Your task to perform on an android device: turn pop-ups off in chrome Image 0: 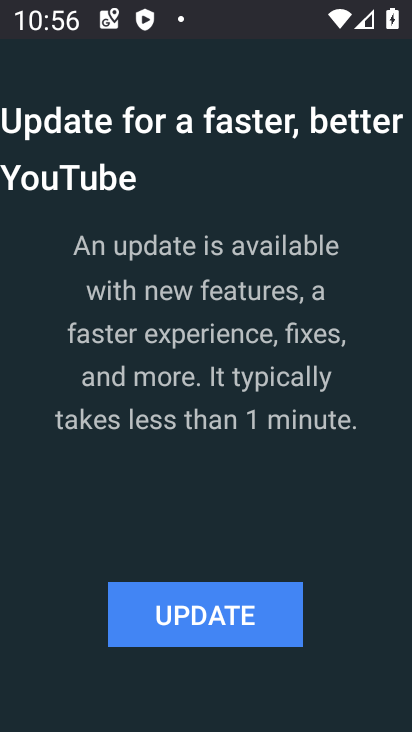
Step 0: press home button
Your task to perform on an android device: turn pop-ups off in chrome Image 1: 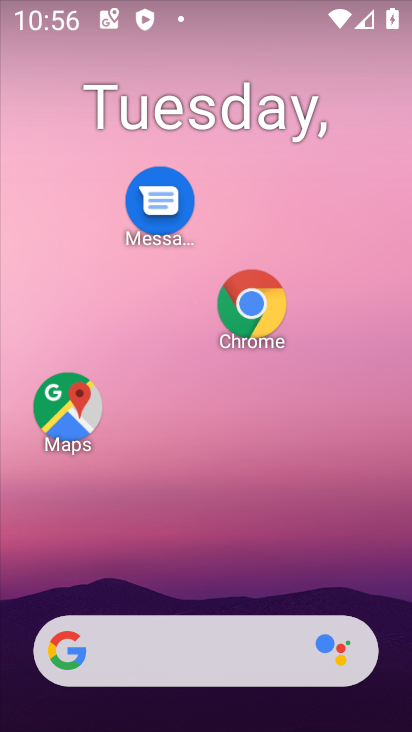
Step 1: drag from (276, 563) to (370, 163)
Your task to perform on an android device: turn pop-ups off in chrome Image 2: 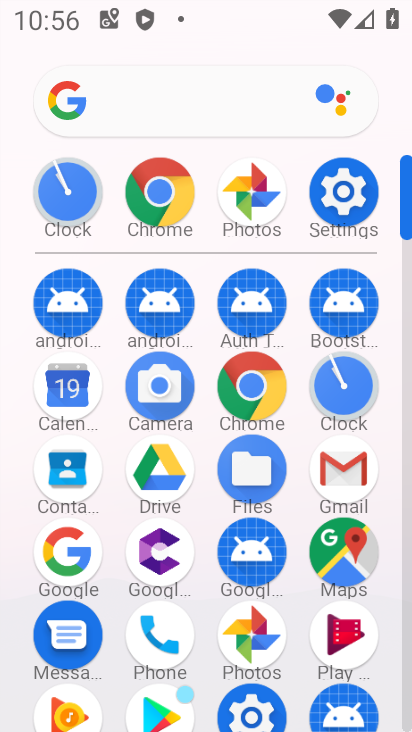
Step 2: click (249, 383)
Your task to perform on an android device: turn pop-ups off in chrome Image 3: 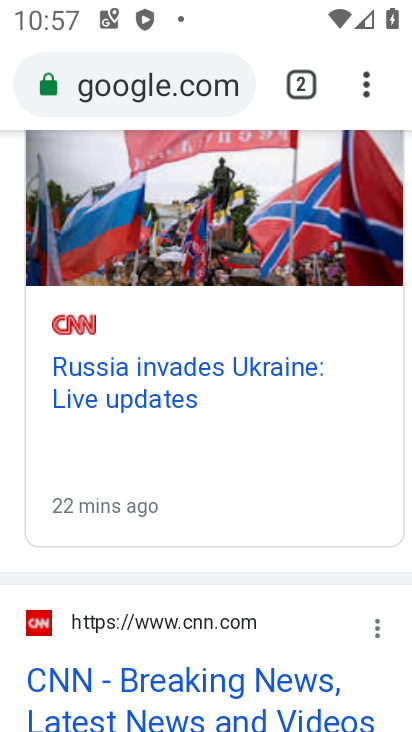
Step 3: click (369, 82)
Your task to perform on an android device: turn pop-ups off in chrome Image 4: 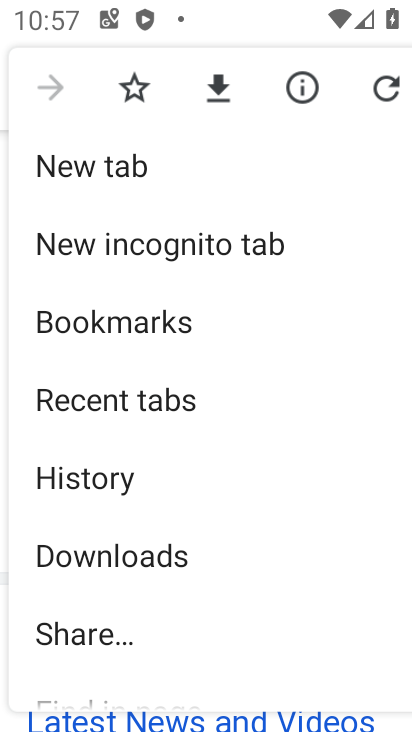
Step 4: drag from (200, 620) to (411, 108)
Your task to perform on an android device: turn pop-ups off in chrome Image 5: 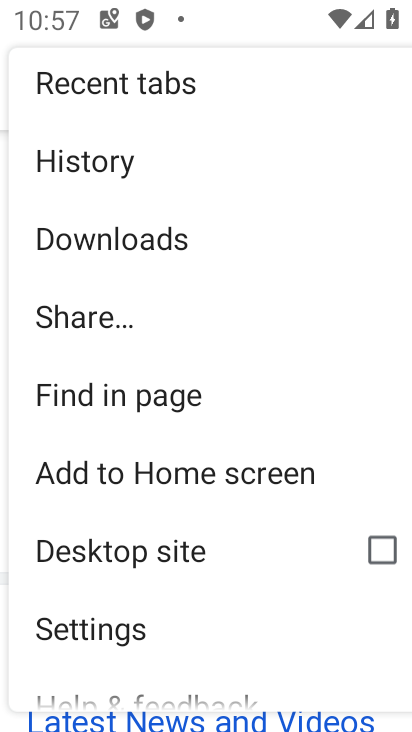
Step 5: click (145, 640)
Your task to perform on an android device: turn pop-ups off in chrome Image 6: 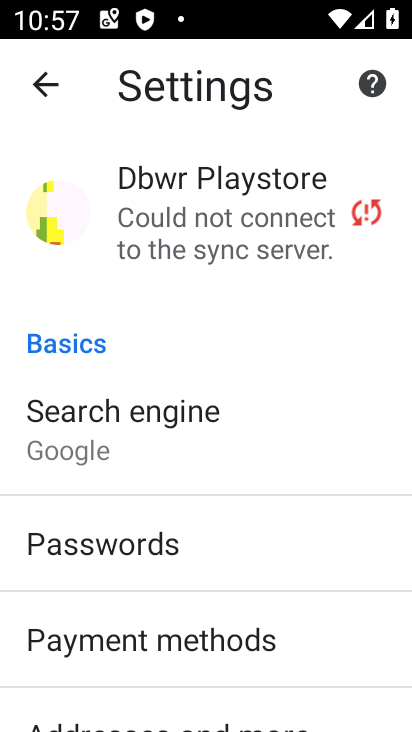
Step 6: drag from (169, 633) to (253, 284)
Your task to perform on an android device: turn pop-ups off in chrome Image 7: 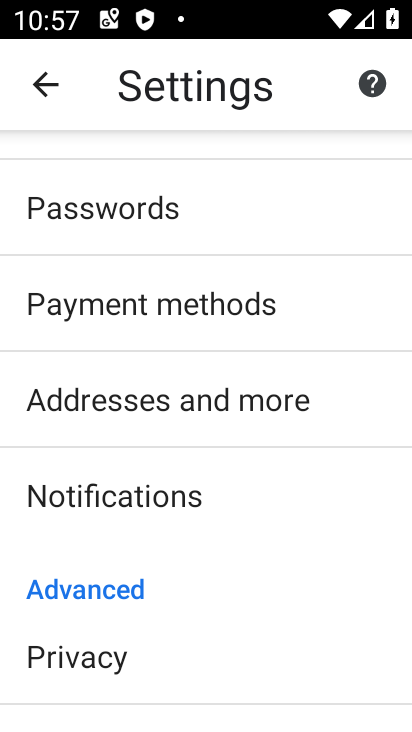
Step 7: drag from (132, 575) to (229, 265)
Your task to perform on an android device: turn pop-ups off in chrome Image 8: 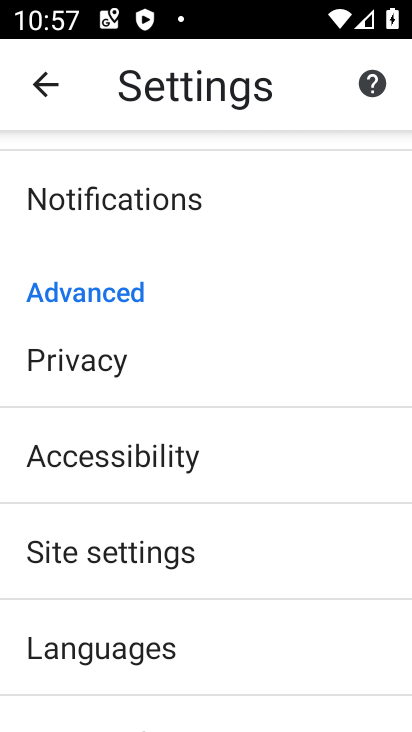
Step 8: click (153, 546)
Your task to perform on an android device: turn pop-ups off in chrome Image 9: 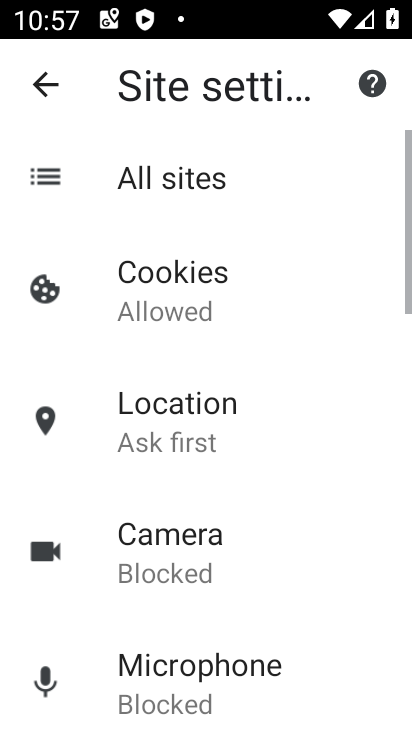
Step 9: drag from (224, 598) to (239, 283)
Your task to perform on an android device: turn pop-ups off in chrome Image 10: 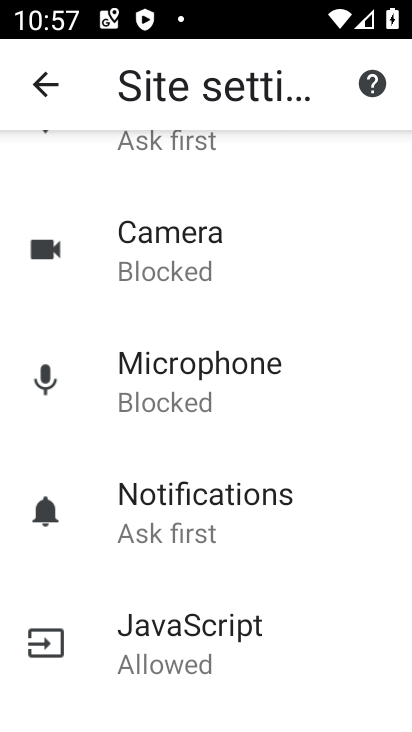
Step 10: drag from (214, 600) to (282, 289)
Your task to perform on an android device: turn pop-ups off in chrome Image 11: 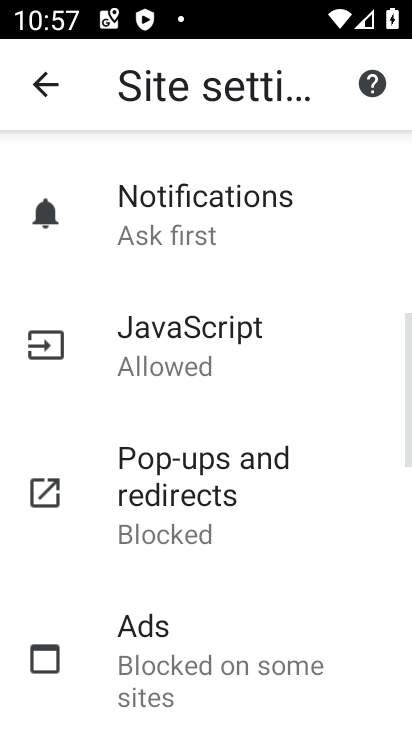
Step 11: click (222, 484)
Your task to perform on an android device: turn pop-ups off in chrome Image 12: 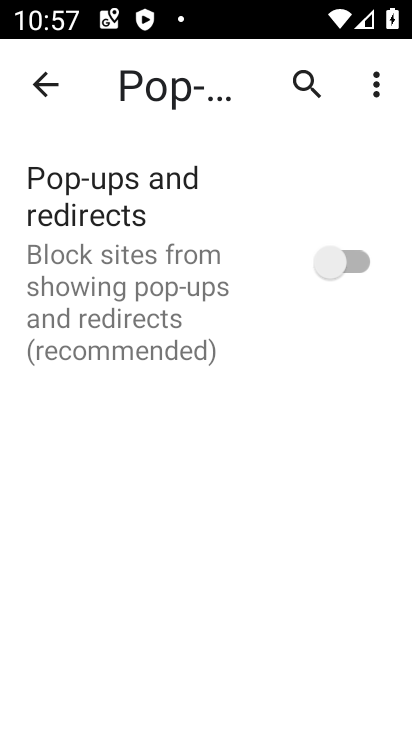
Step 12: task complete